Your task to perform on an android device: star an email in the gmail app Image 0: 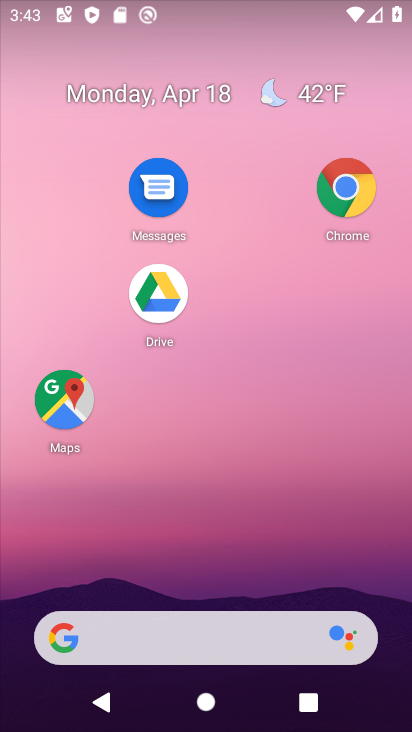
Step 0: drag from (202, 541) to (180, 74)
Your task to perform on an android device: star an email in the gmail app Image 1: 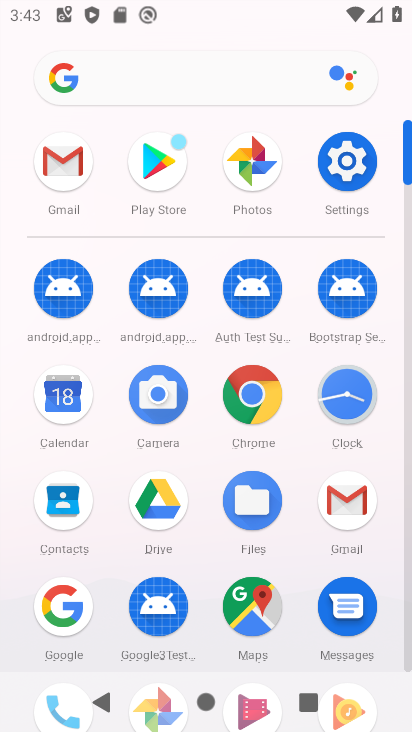
Step 1: click (68, 172)
Your task to perform on an android device: star an email in the gmail app Image 2: 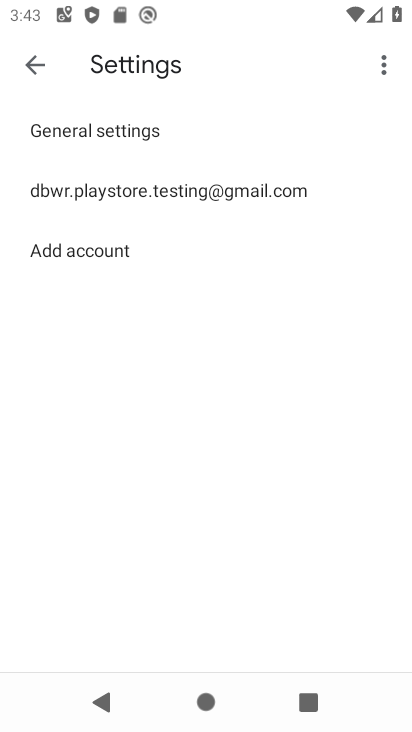
Step 2: press back button
Your task to perform on an android device: star an email in the gmail app Image 3: 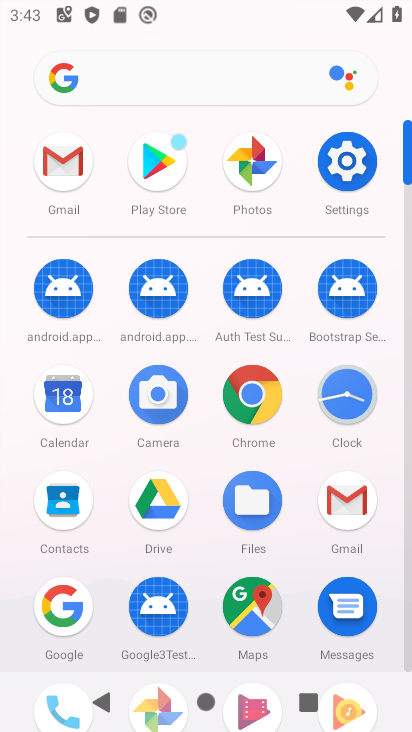
Step 3: click (75, 145)
Your task to perform on an android device: star an email in the gmail app Image 4: 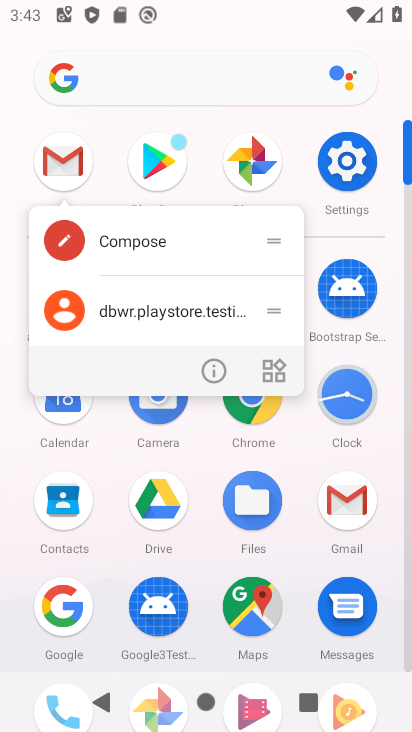
Step 4: click (75, 145)
Your task to perform on an android device: star an email in the gmail app Image 5: 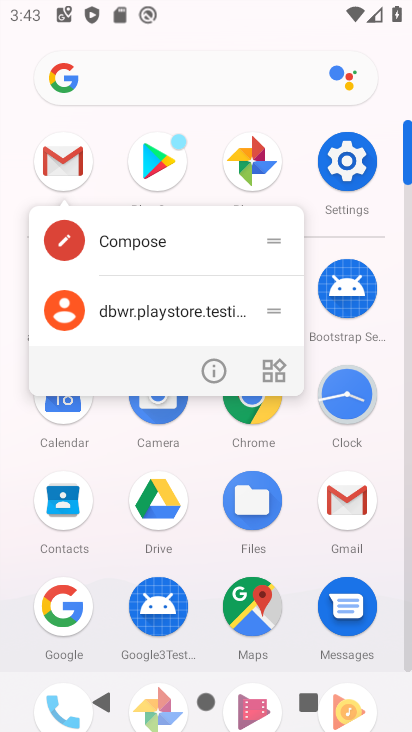
Step 5: click (75, 145)
Your task to perform on an android device: star an email in the gmail app Image 6: 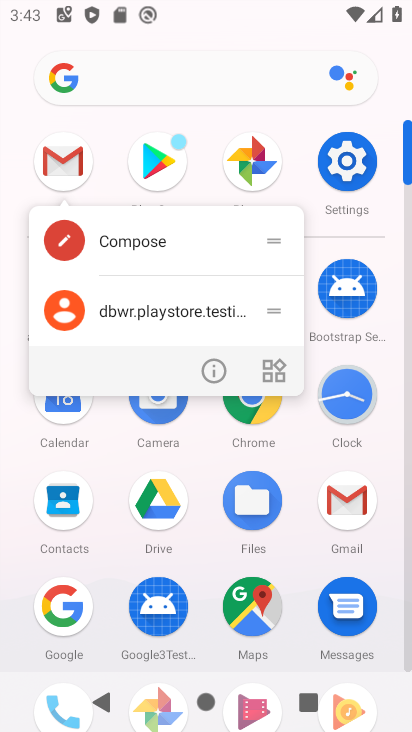
Step 6: click (67, 180)
Your task to perform on an android device: star an email in the gmail app Image 7: 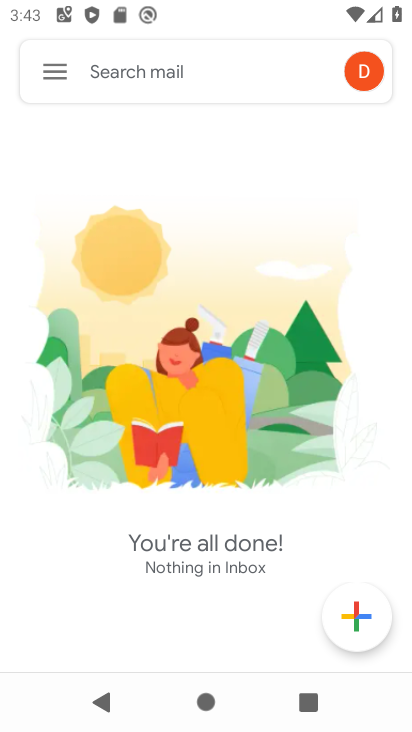
Step 7: click (66, 79)
Your task to perform on an android device: star an email in the gmail app Image 8: 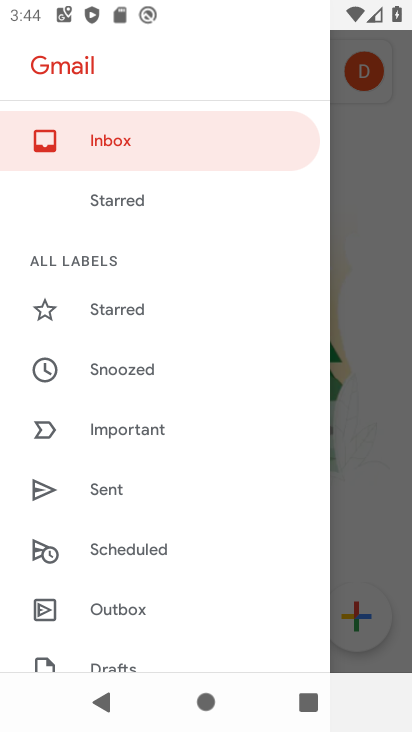
Step 8: drag from (152, 544) to (139, 463)
Your task to perform on an android device: star an email in the gmail app Image 9: 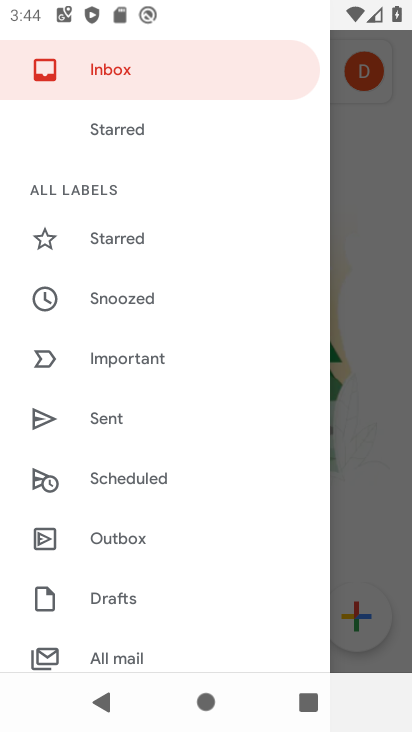
Step 9: click (127, 238)
Your task to perform on an android device: star an email in the gmail app Image 10: 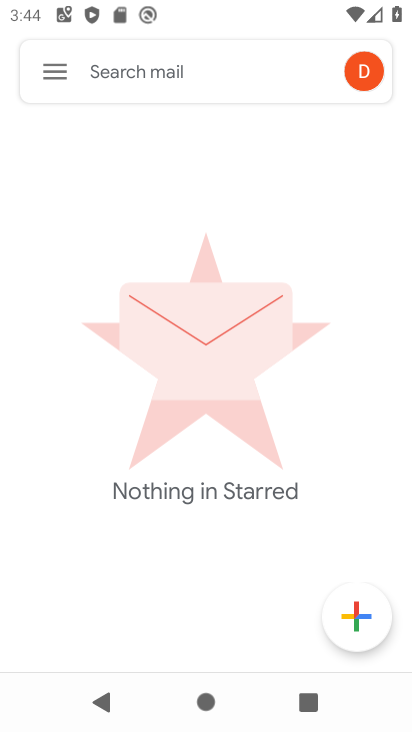
Step 10: task complete